Your task to perform on an android device: toggle pop-ups in chrome Image 0: 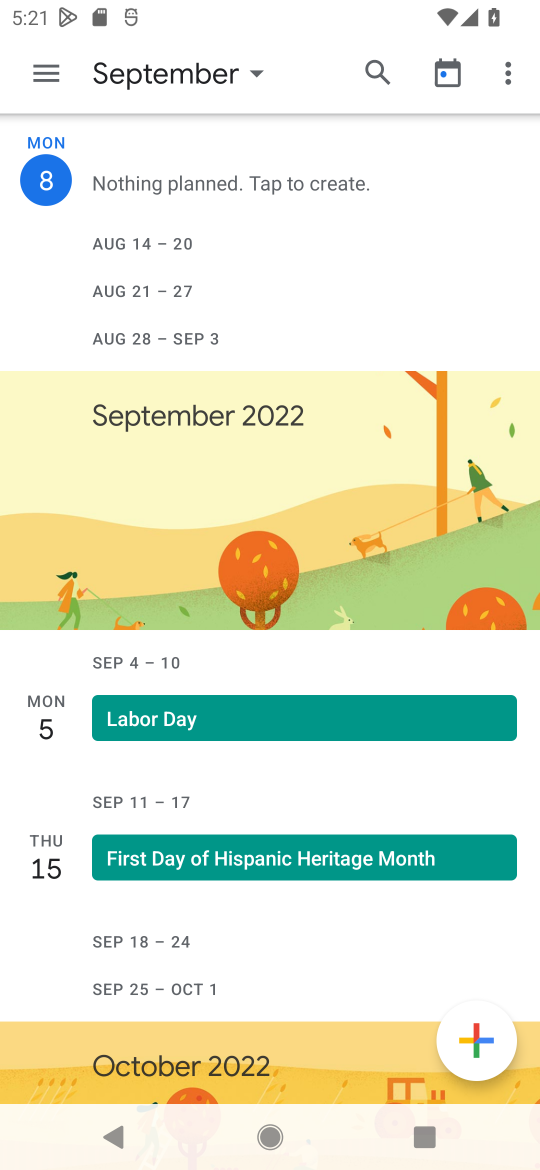
Step 0: task complete